Your task to perform on an android device: open a new tab in the chrome app Image 0: 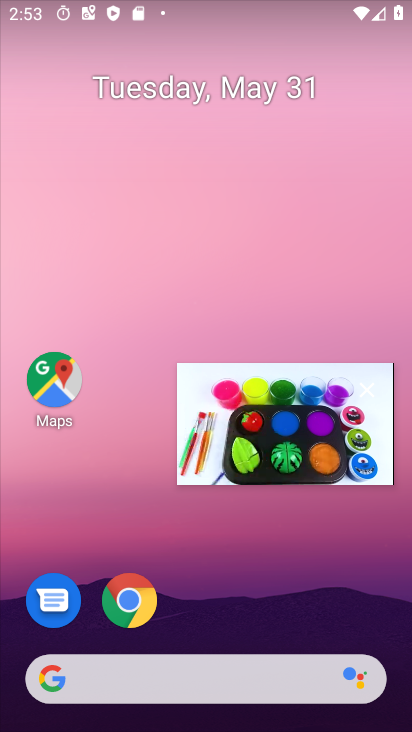
Step 0: press home button
Your task to perform on an android device: open a new tab in the chrome app Image 1: 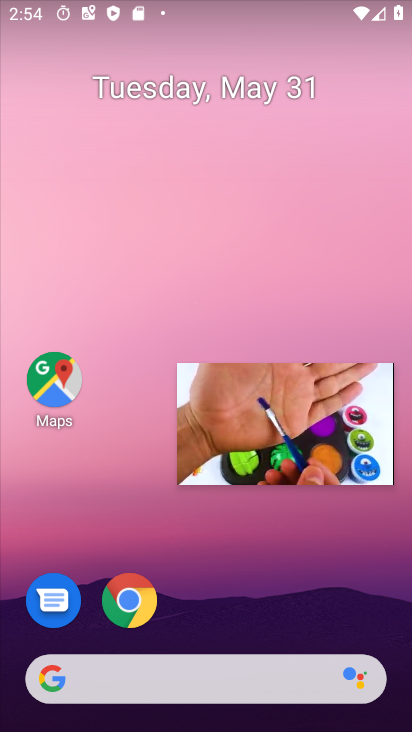
Step 1: click (293, 430)
Your task to perform on an android device: open a new tab in the chrome app Image 2: 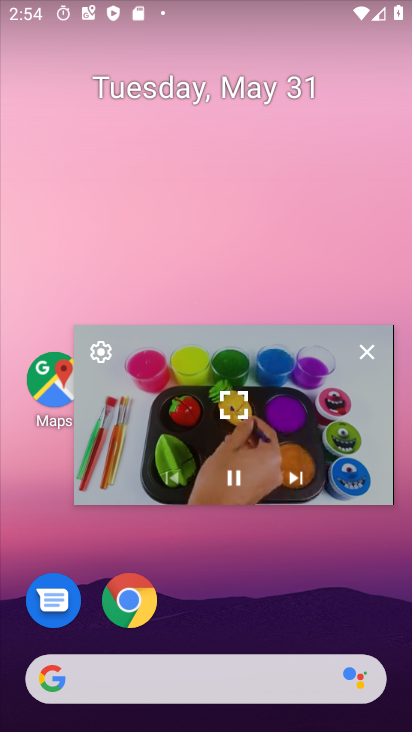
Step 2: click (369, 350)
Your task to perform on an android device: open a new tab in the chrome app Image 3: 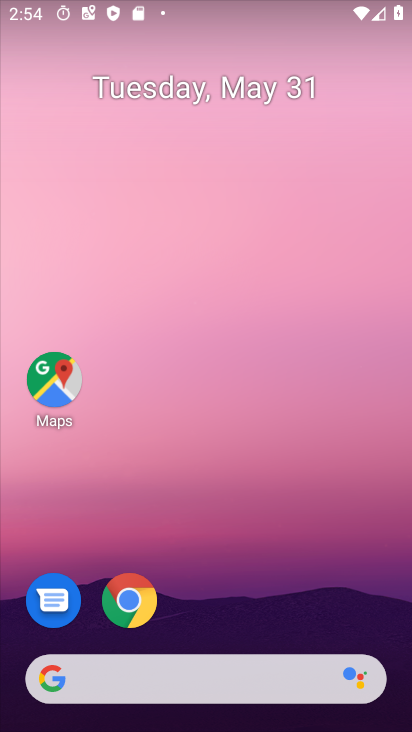
Step 3: click (123, 597)
Your task to perform on an android device: open a new tab in the chrome app Image 4: 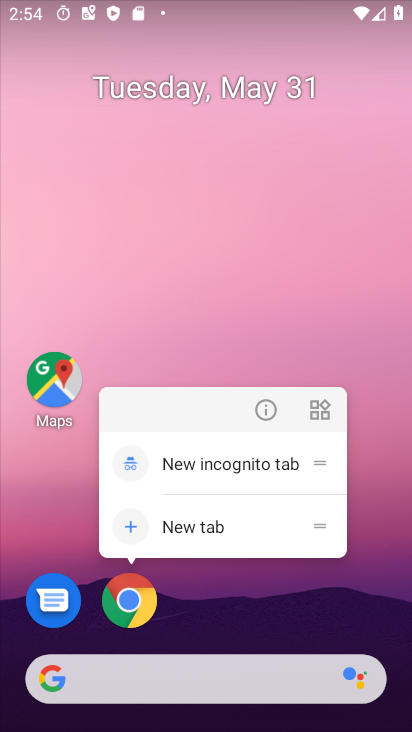
Step 4: click (126, 595)
Your task to perform on an android device: open a new tab in the chrome app Image 5: 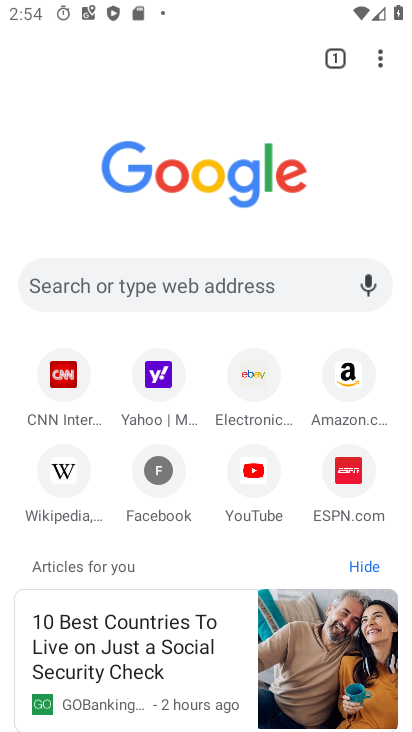
Step 5: click (329, 58)
Your task to perform on an android device: open a new tab in the chrome app Image 6: 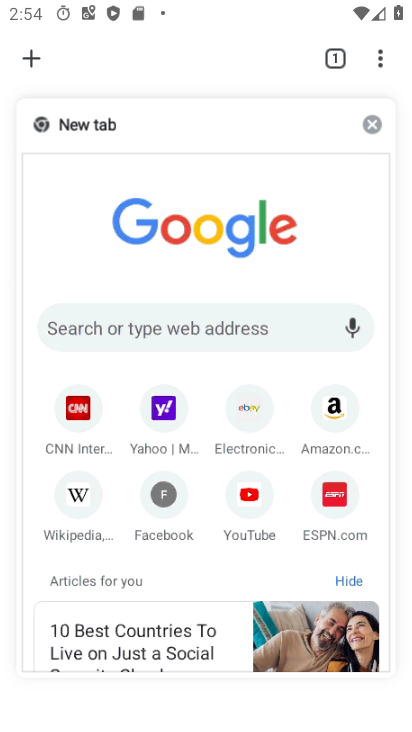
Step 6: click (32, 63)
Your task to perform on an android device: open a new tab in the chrome app Image 7: 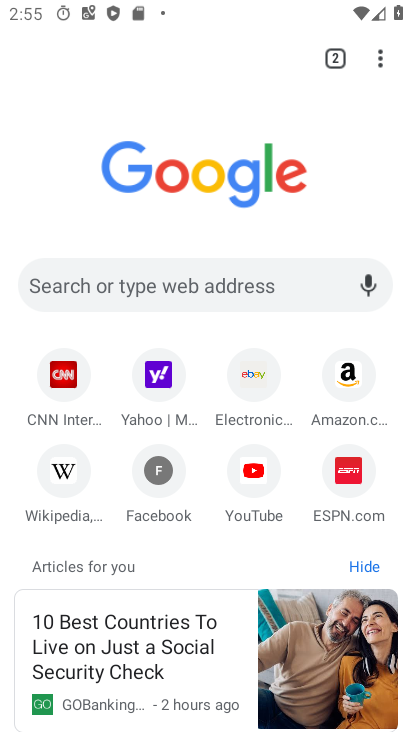
Step 7: task complete